Your task to perform on an android device: delete location history Image 0: 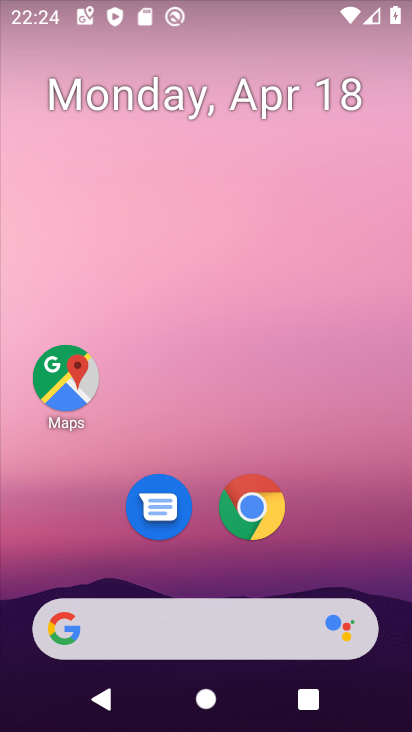
Step 0: click (61, 378)
Your task to perform on an android device: delete location history Image 1: 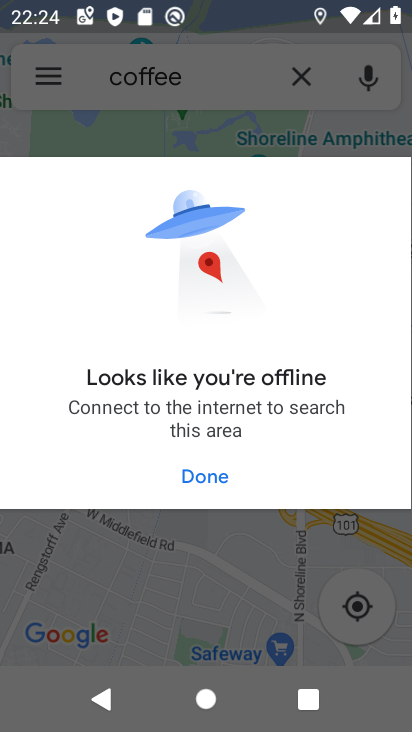
Step 1: click (216, 476)
Your task to perform on an android device: delete location history Image 2: 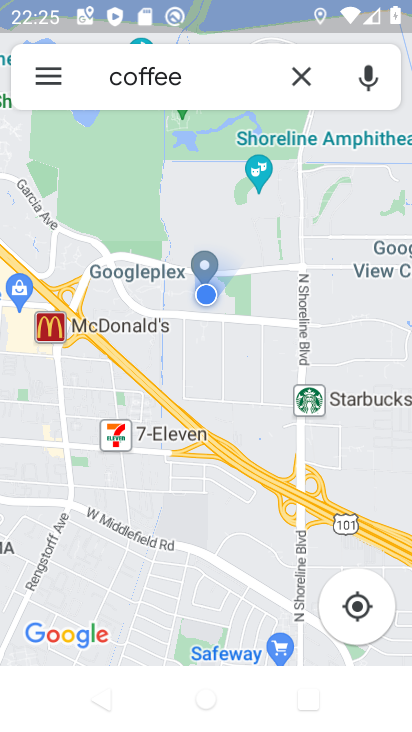
Step 2: click (51, 67)
Your task to perform on an android device: delete location history Image 3: 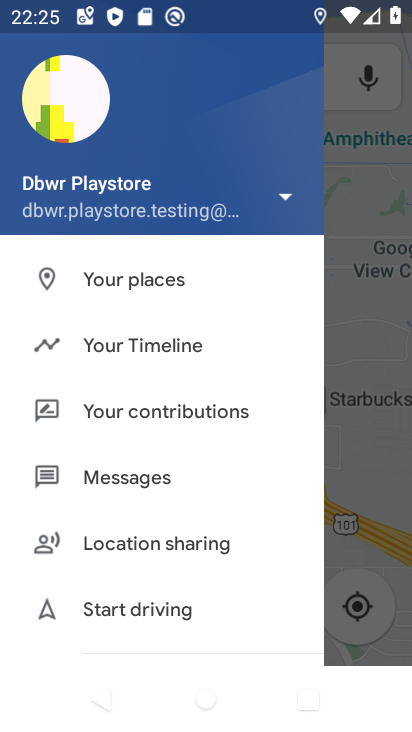
Step 3: click (169, 347)
Your task to perform on an android device: delete location history Image 4: 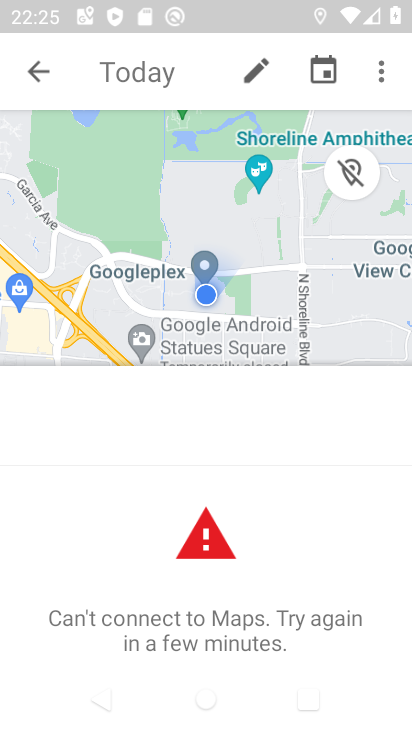
Step 4: click (382, 75)
Your task to perform on an android device: delete location history Image 5: 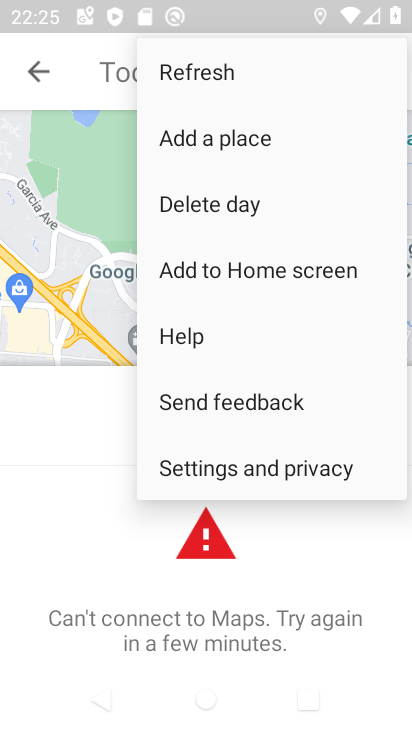
Step 5: click (266, 466)
Your task to perform on an android device: delete location history Image 6: 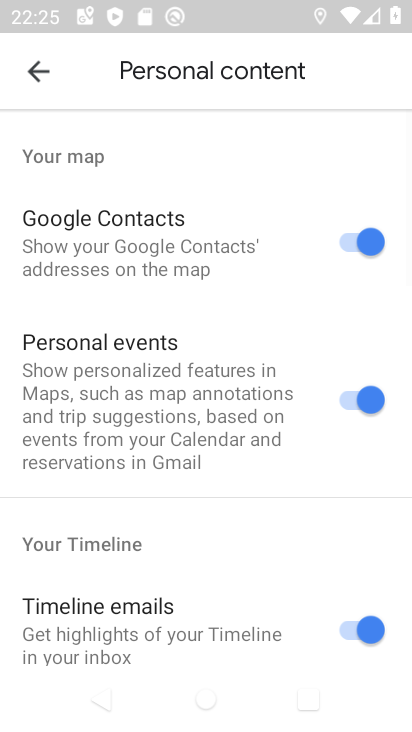
Step 6: drag from (196, 564) to (224, 179)
Your task to perform on an android device: delete location history Image 7: 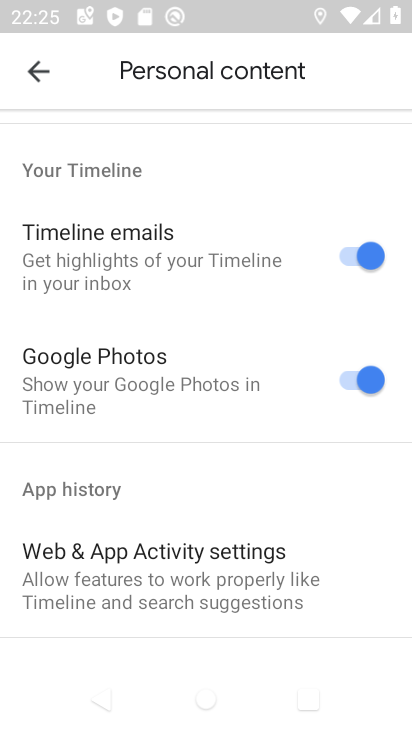
Step 7: drag from (182, 535) to (181, 181)
Your task to perform on an android device: delete location history Image 8: 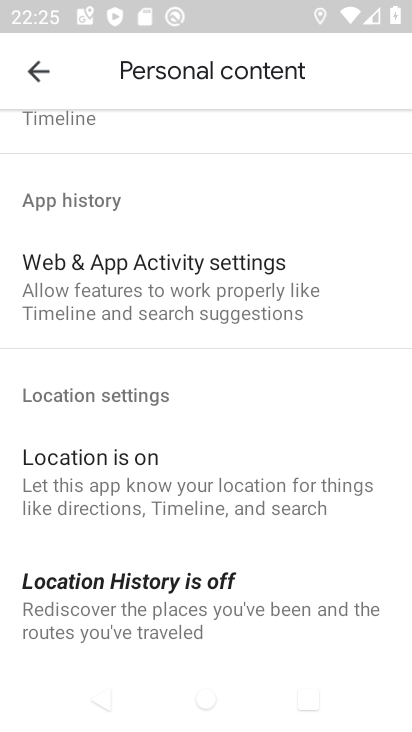
Step 8: drag from (249, 412) to (261, 142)
Your task to perform on an android device: delete location history Image 9: 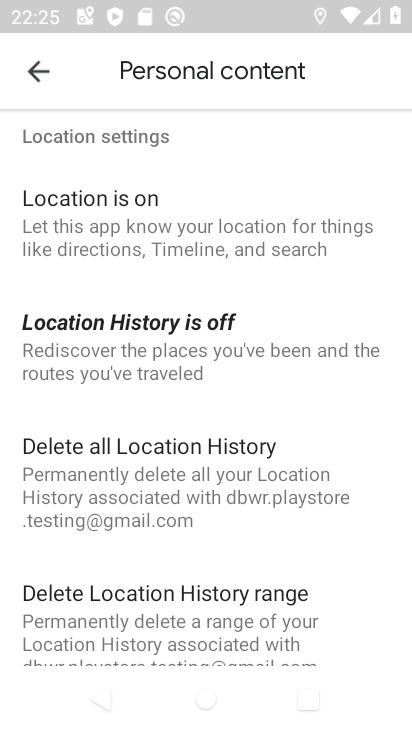
Step 9: click (199, 484)
Your task to perform on an android device: delete location history Image 10: 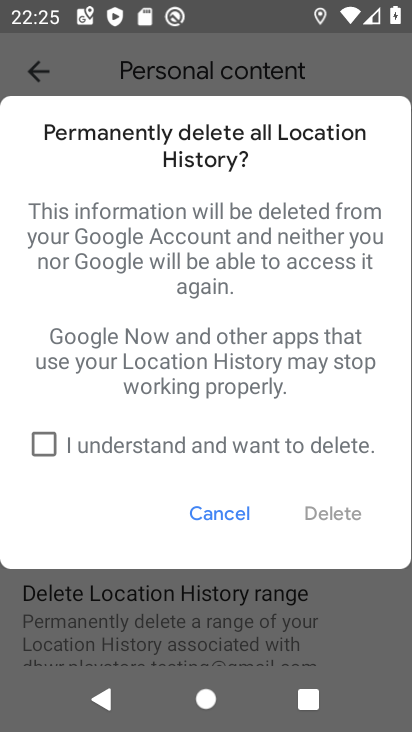
Step 10: click (49, 442)
Your task to perform on an android device: delete location history Image 11: 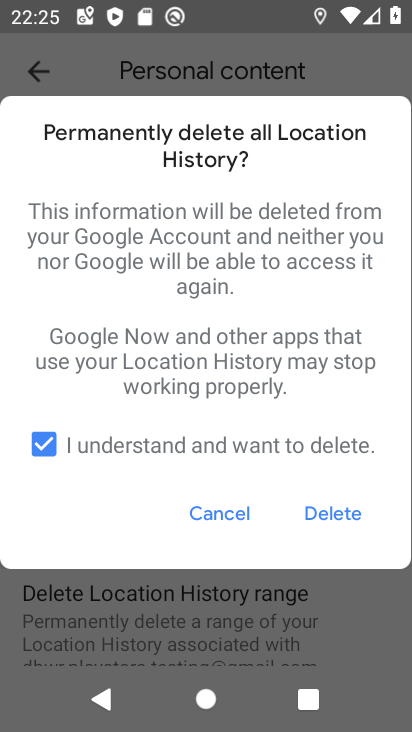
Step 11: click (334, 498)
Your task to perform on an android device: delete location history Image 12: 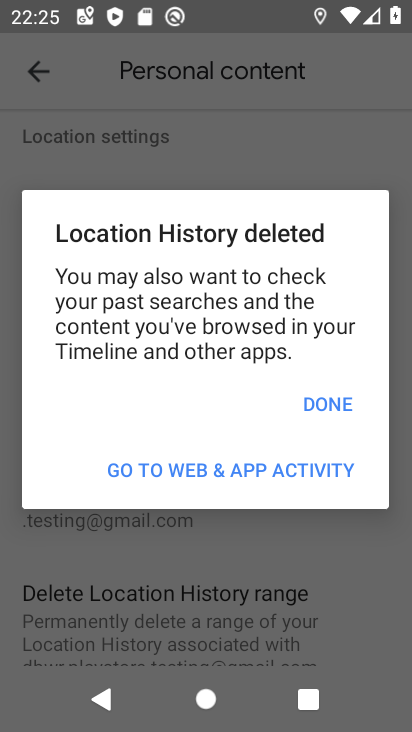
Step 12: click (337, 403)
Your task to perform on an android device: delete location history Image 13: 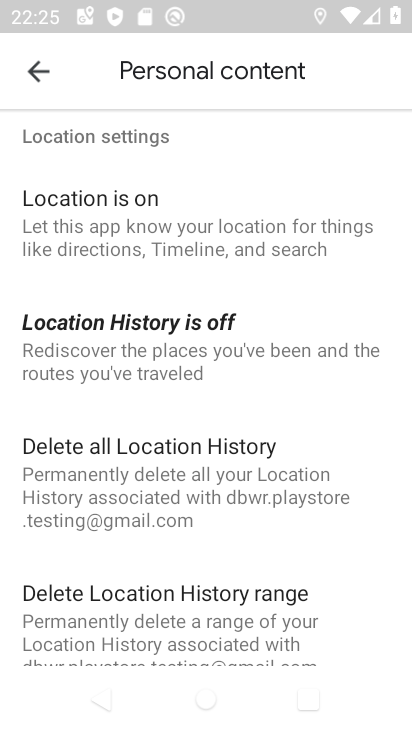
Step 13: task complete